Your task to perform on an android device: toggle data saver in the chrome app Image 0: 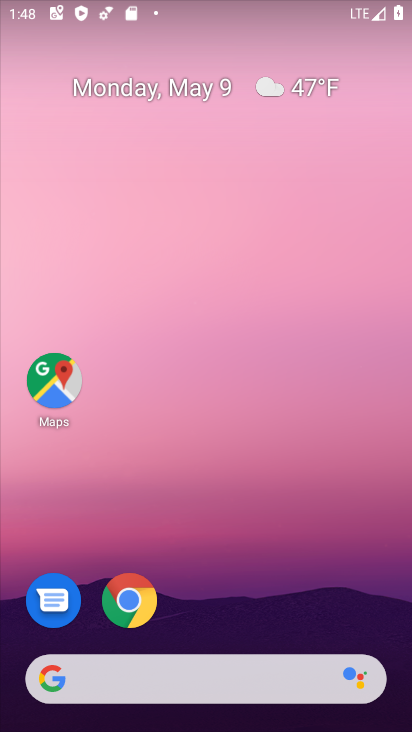
Step 0: click (123, 591)
Your task to perform on an android device: toggle data saver in the chrome app Image 1: 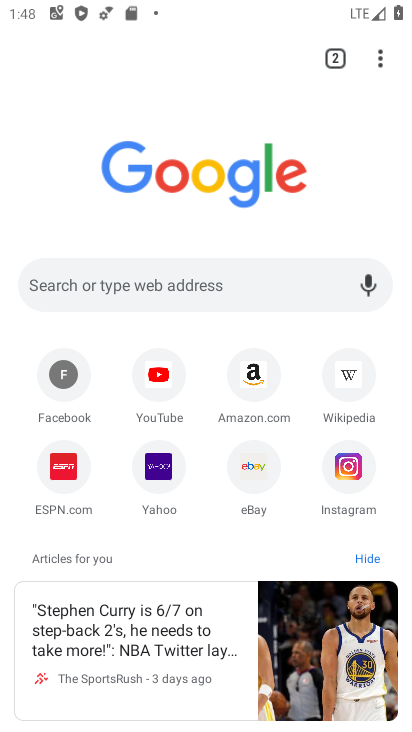
Step 1: click (380, 59)
Your task to perform on an android device: toggle data saver in the chrome app Image 2: 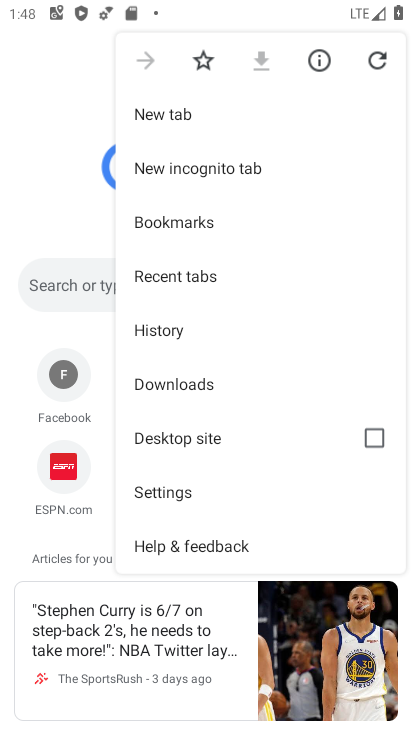
Step 2: click (196, 493)
Your task to perform on an android device: toggle data saver in the chrome app Image 3: 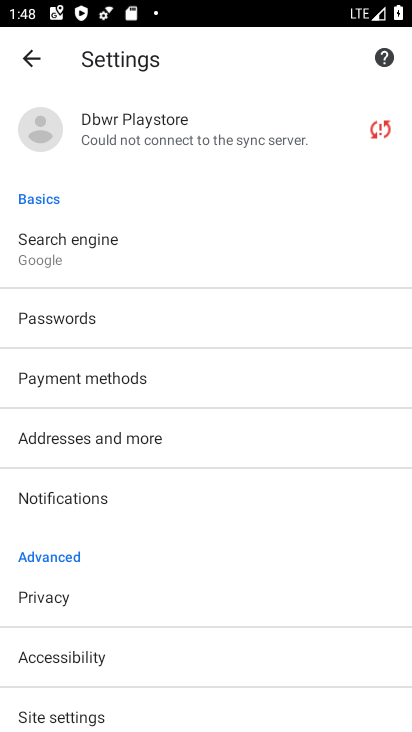
Step 3: drag from (156, 691) to (223, 128)
Your task to perform on an android device: toggle data saver in the chrome app Image 4: 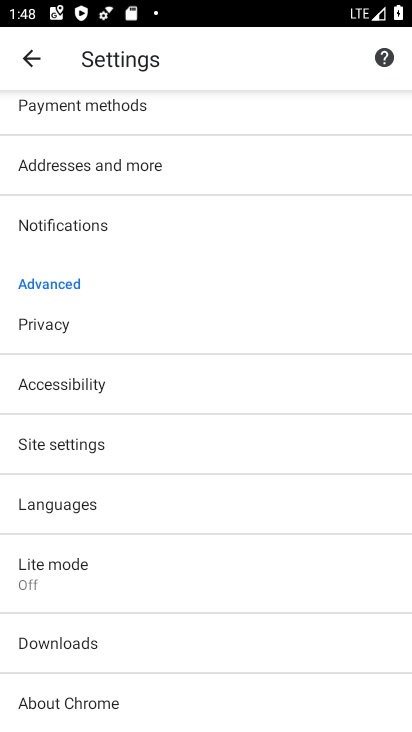
Step 4: click (93, 577)
Your task to perform on an android device: toggle data saver in the chrome app Image 5: 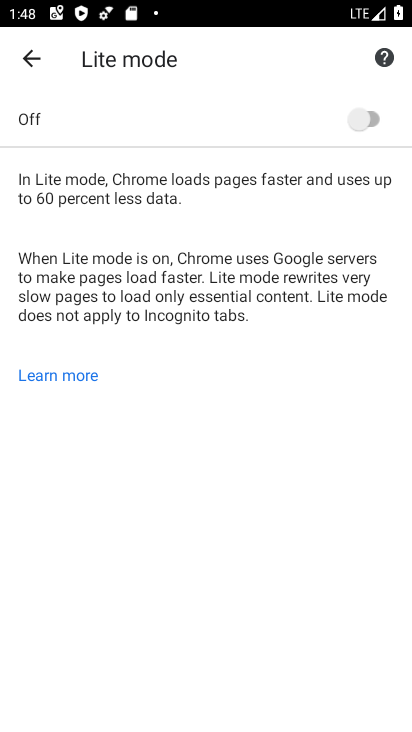
Step 5: click (366, 117)
Your task to perform on an android device: toggle data saver in the chrome app Image 6: 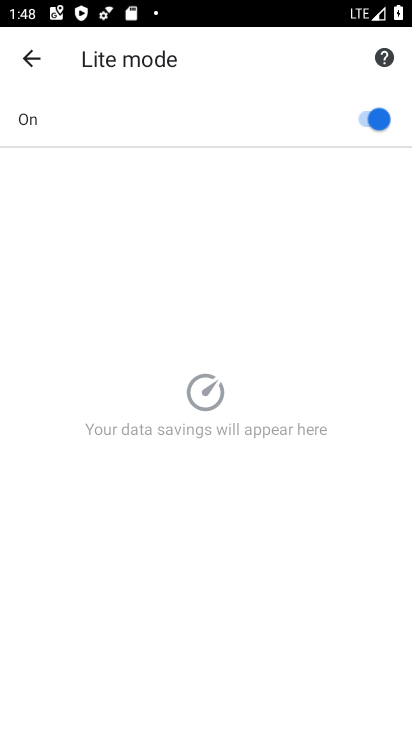
Step 6: task complete